Your task to perform on an android device: toggle translation in the chrome app Image 0: 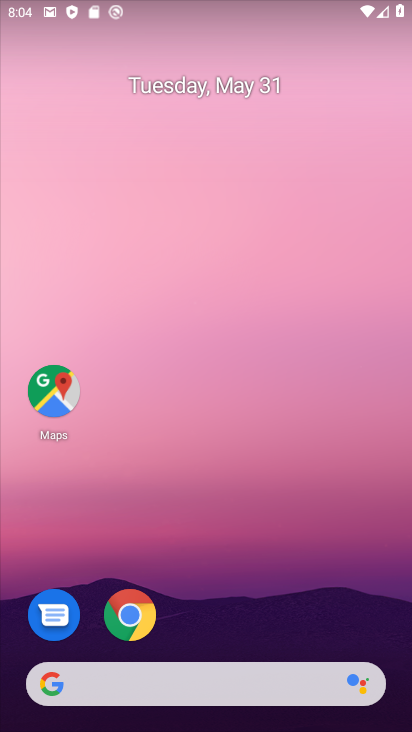
Step 0: click (125, 614)
Your task to perform on an android device: toggle translation in the chrome app Image 1: 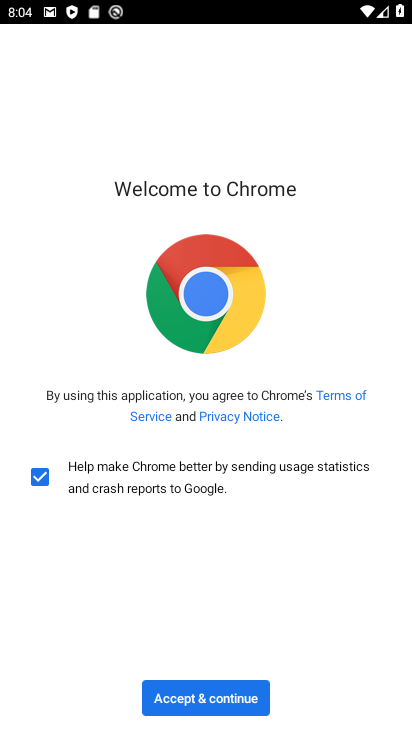
Step 1: click (194, 697)
Your task to perform on an android device: toggle translation in the chrome app Image 2: 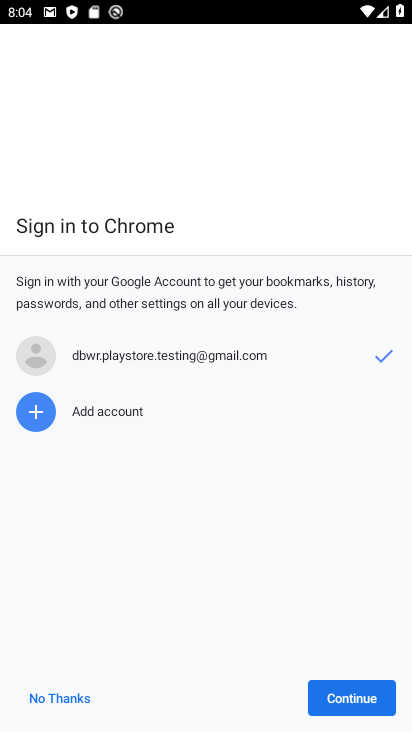
Step 2: click (353, 691)
Your task to perform on an android device: toggle translation in the chrome app Image 3: 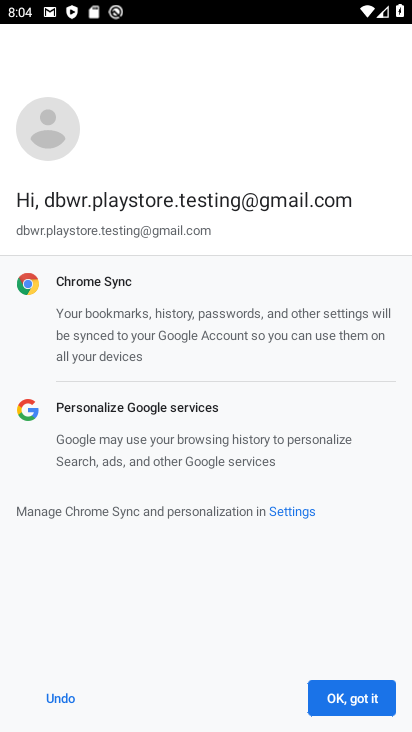
Step 3: click (353, 691)
Your task to perform on an android device: toggle translation in the chrome app Image 4: 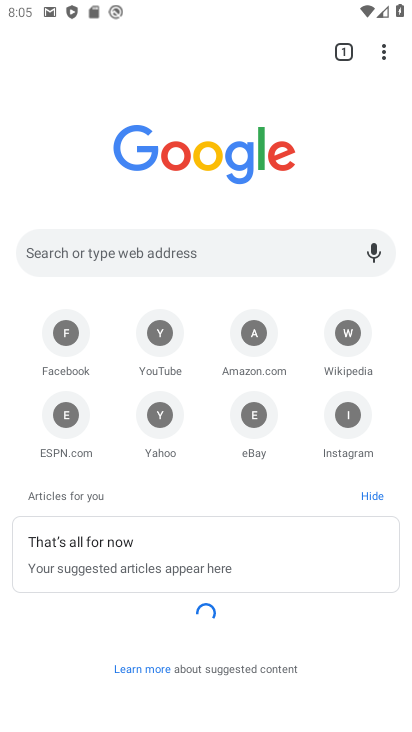
Step 4: click (383, 59)
Your task to perform on an android device: toggle translation in the chrome app Image 5: 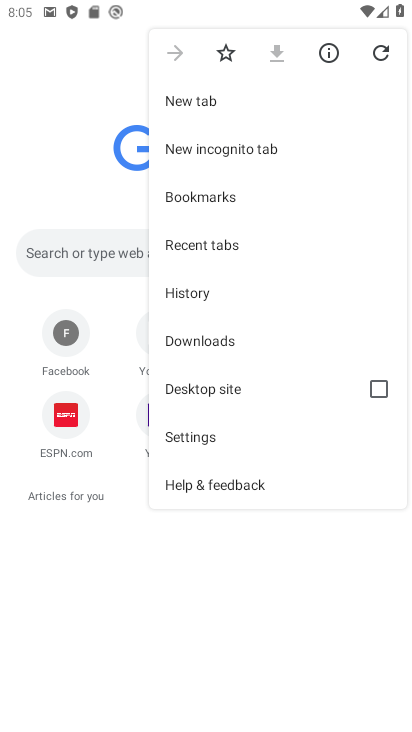
Step 5: click (183, 435)
Your task to perform on an android device: toggle translation in the chrome app Image 6: 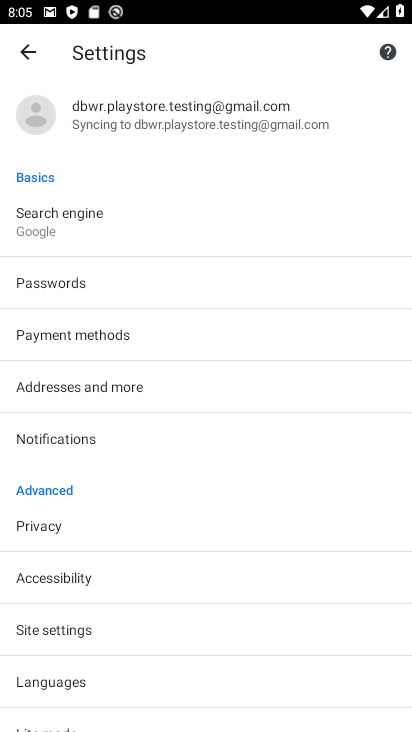
Step 6: drag from (195, 648) to (208, 335)
Your task to perform on an android device: toggle translation in the chrome app Image 7: 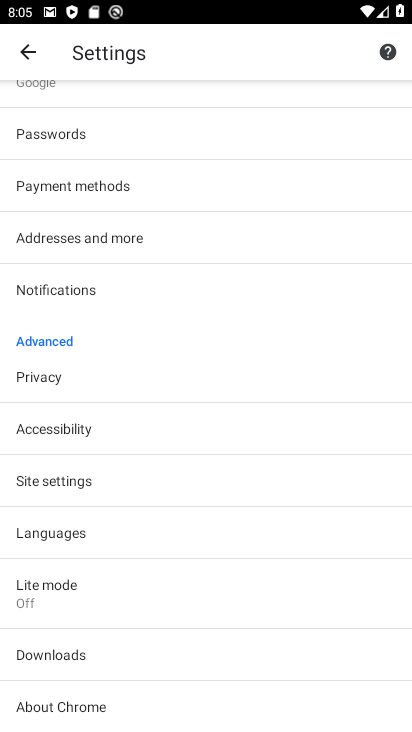
Step 7: click (35, 525)
Your task to perform on an android device: toggle translation in the chrome app Image 8: 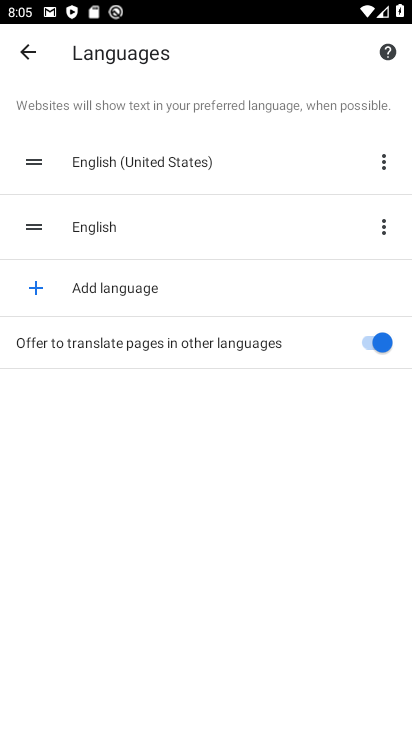
Step 8: click (361, 339)
Your task to perform on an android device: toggle translation in the chrome app Image 9: 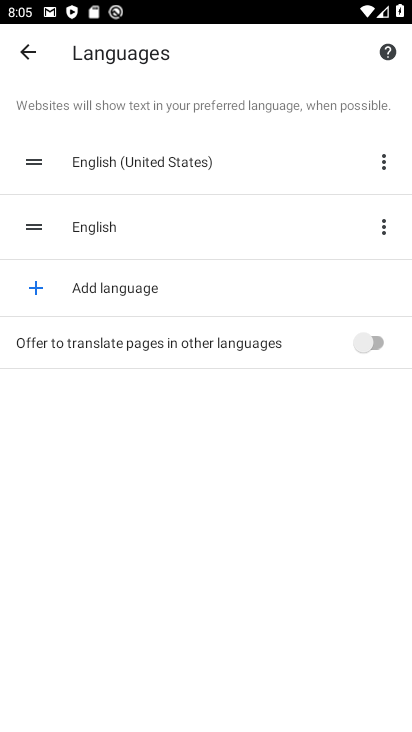
Step 9: task complete